Your task to perform on an android device: Open notification settings Image 0: 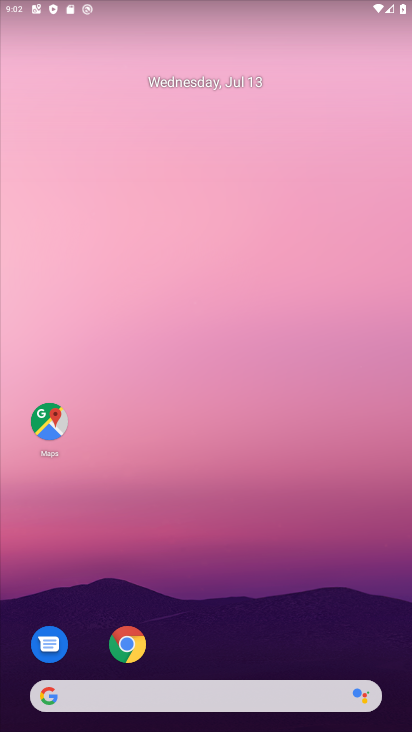
Step 0: drag from (237, 709) to (211, 170)
Your task to perform on an android device: Open notification settings Image 1: 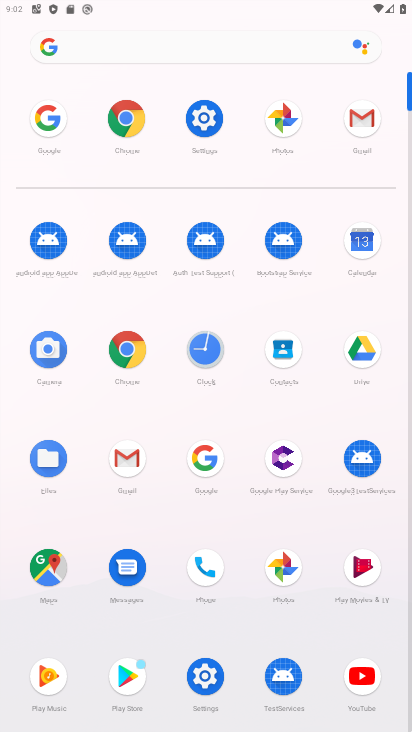
Step 1: click (206, 111)
Your task to perform on an android device: Open notification settings Image 2: 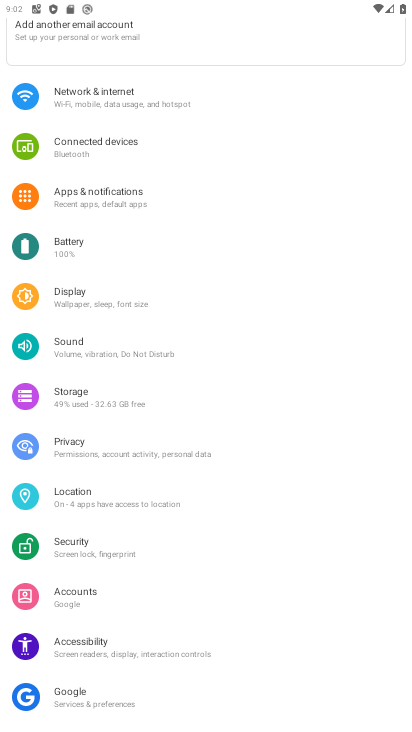
Step 2: click (97, 200)
Your task to perform on an android device: Open notification settings Image 3: 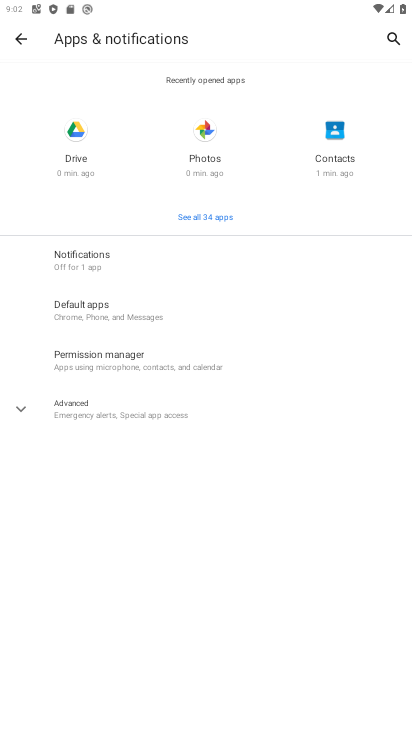
Step 3: click (81, 259)
Your task to perform on an android device: Open notification settings Image 4: 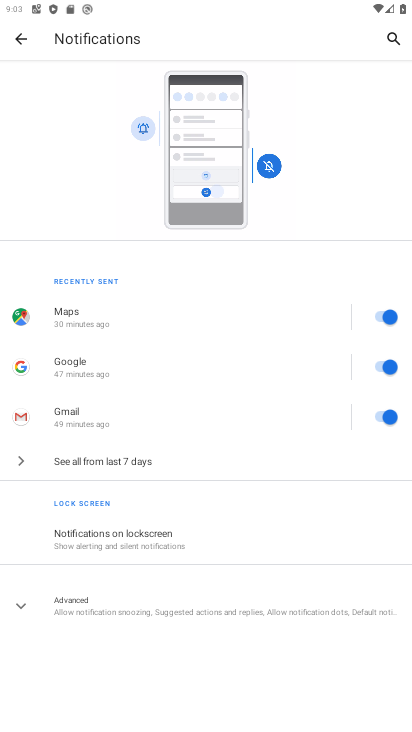
Step 4: task complete